Your task to perform on an android device: Search for sushi restaurants on Maps Image 0: 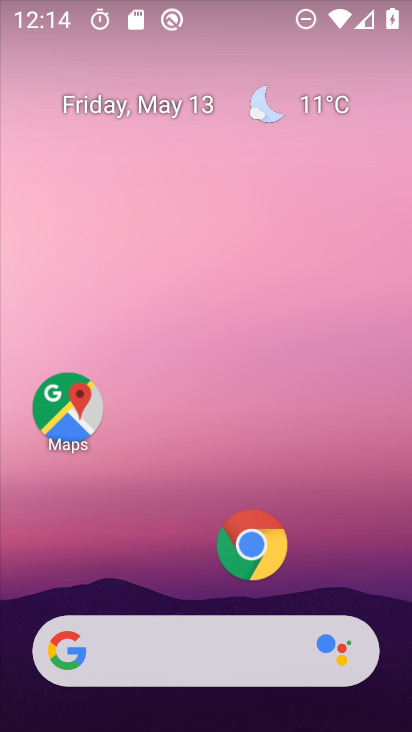
Step 0: click (74, 407)
Your task to perform on an android device: Search for sushi restaurants on Maps Image 1: 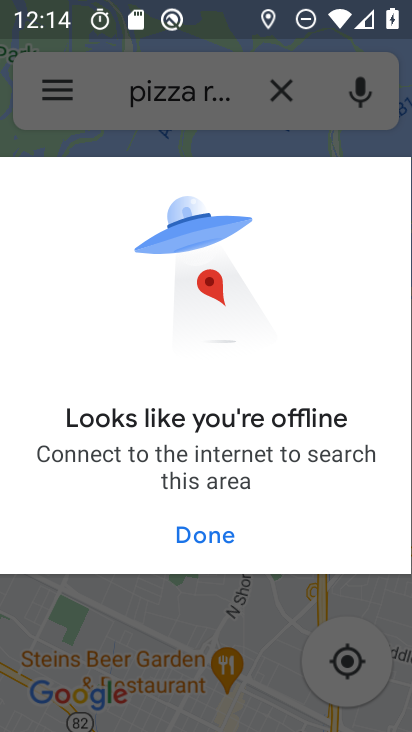
Step 1: click (186, 530)
Your task to perform on an android device: Search for sushi restaurants on Maps Image 2: 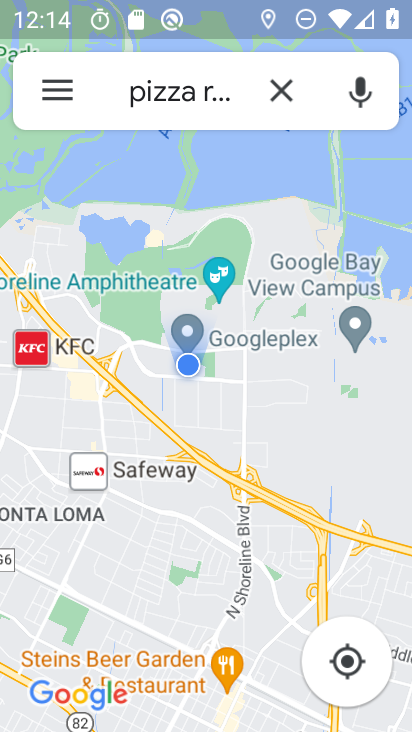
Step 2: click (279, 94)
Your task to perform on an android device: Search for sushi restaurants on Maps Image 3: 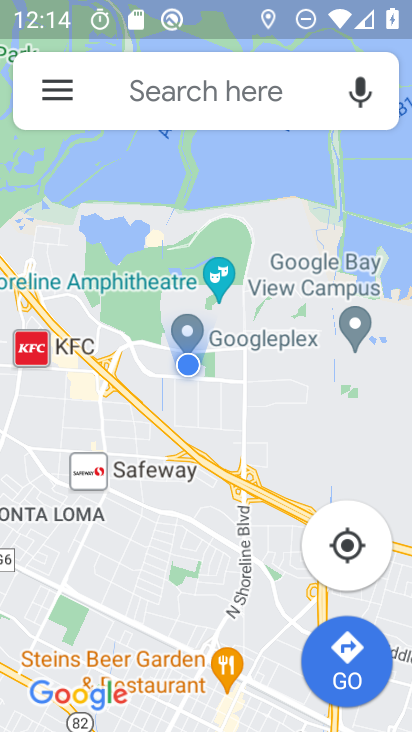
Step 3: click (151, 90)
Your task to perform on an android device: Search for sushi restaurants on Maps Image 4: 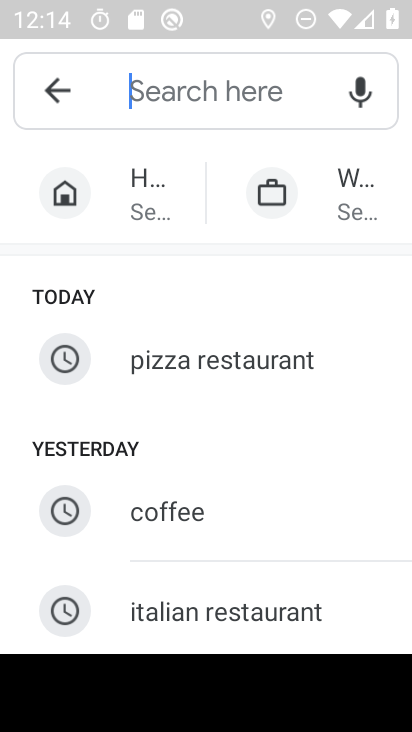
Step 4: drag from (253, 577) to (259, 135)
Your task to perform on an android device: Search for sushi restaurants on Maps Image 5: 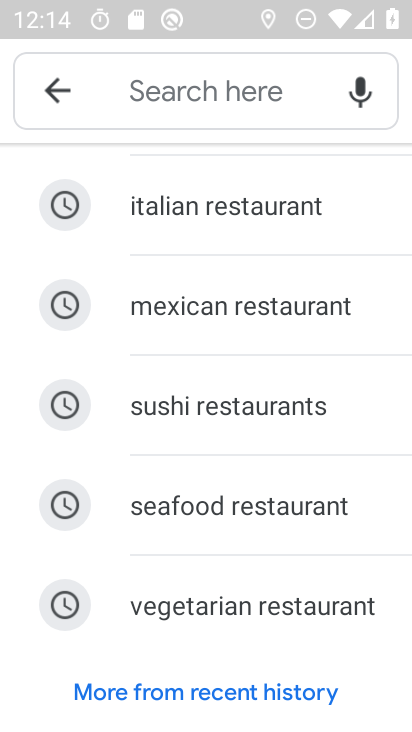
Step 5: click (154, 416)
Your task to perform on an android device: Search for sushi restaurants on Maps Image 6: 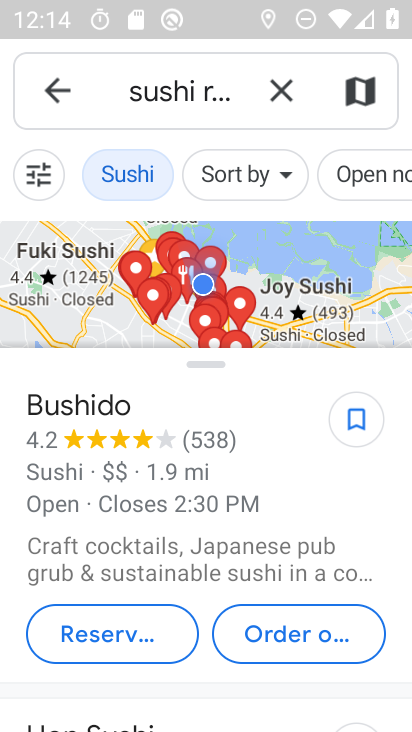
Step 6: task complete